Your task to perform on an android device: open a bookmark in the chrome app Image 0: 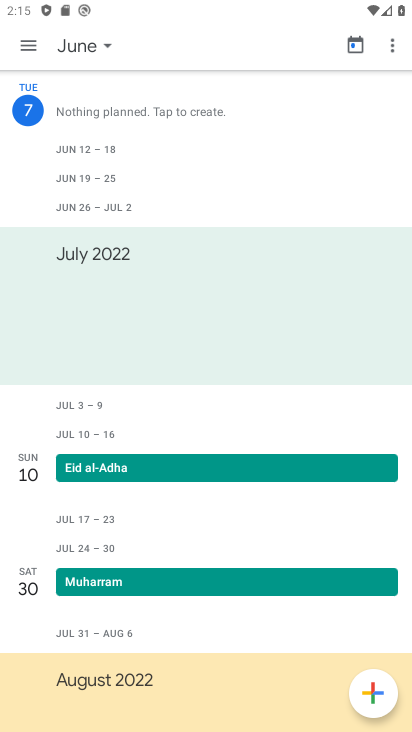
Step 0: press home button
Your task to perform on an android device: open a bookmark in the chrome app Image 1: 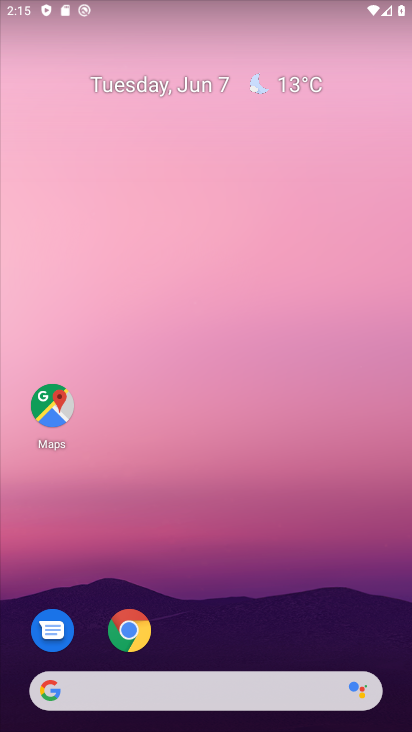
Step 1: drag from (205, 667) to (281, 304)
Your task to perform on an android device: open a bookmark in the chrome app Image 2: 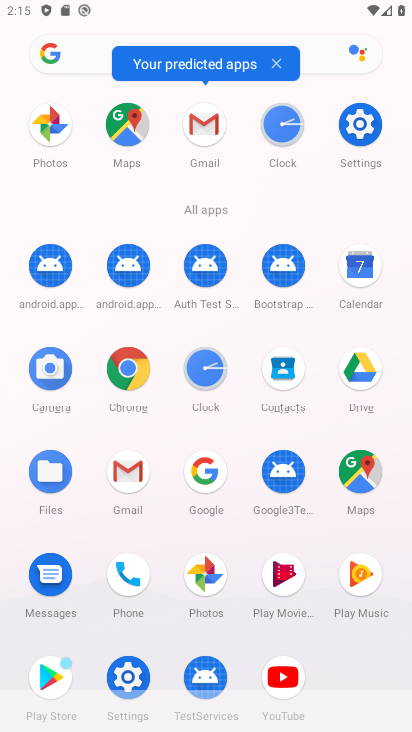
Step 2: click (134, 357)
Your task to perform on an android device: open a bookmark in the chrome app Image 3: 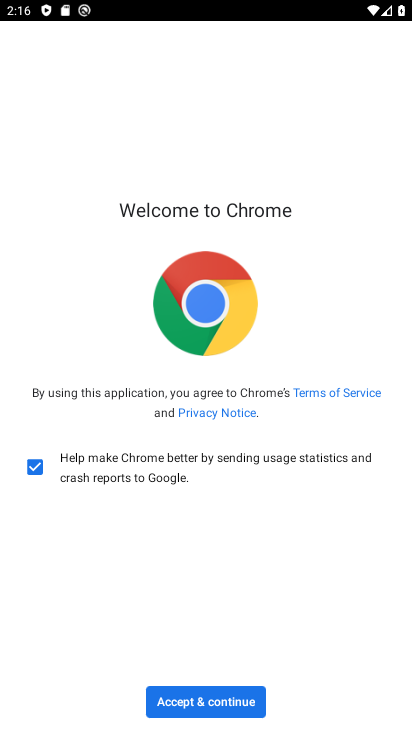
Step 3: click (224, 703)
Your task to perform on an android device: open a bookmark in the chrome app Image 4: 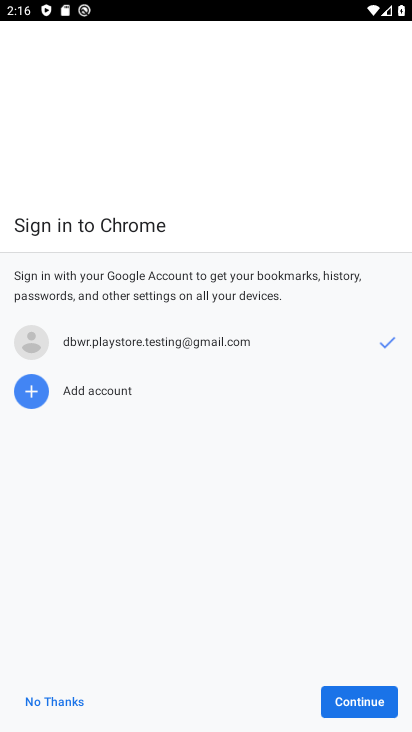
Step 4: click (348, 695)
Your task to perform on an android device: open a bookmark in the chrome app Image 5: 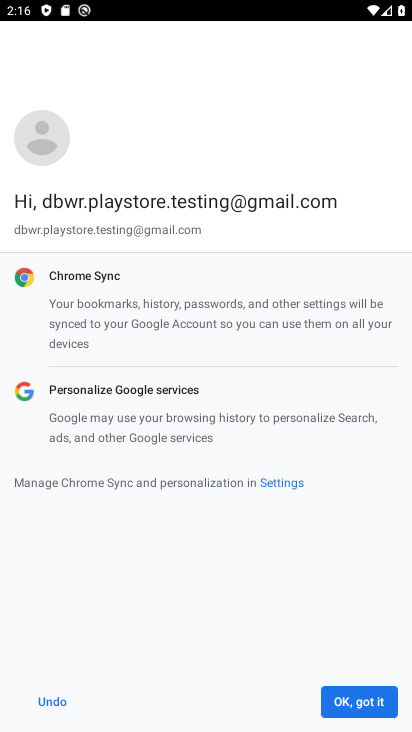
Step 5: click (348, 695)
Your task to perform on an android device: open a bookmark in the chrome app Image 6: 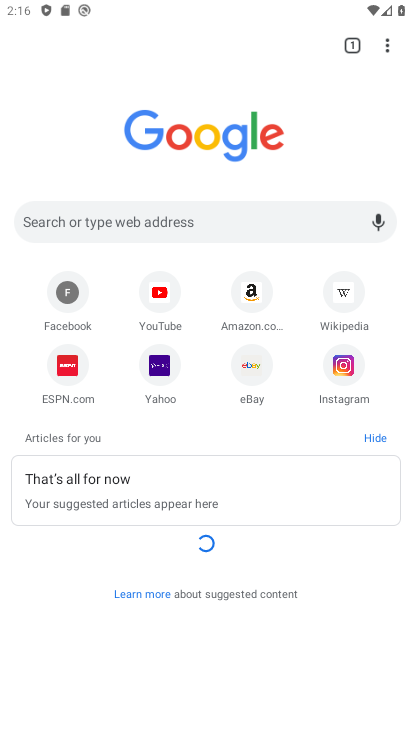
Step 6: task complete